Your task to perform on an android device: check storage Image 0: 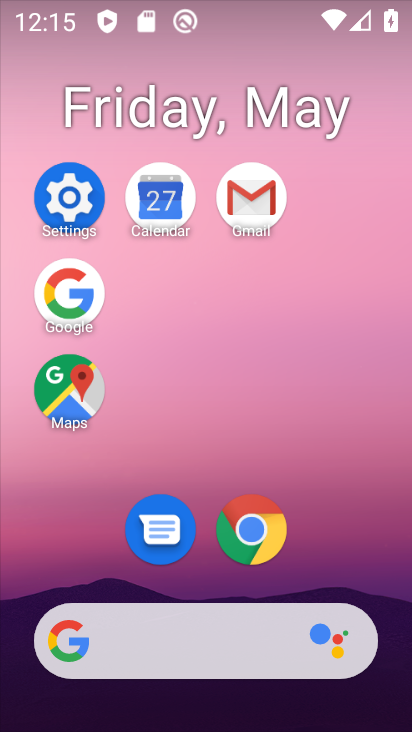
Step 0: click (88, 206)
Your task to perform on an android device: check storage Image 1: 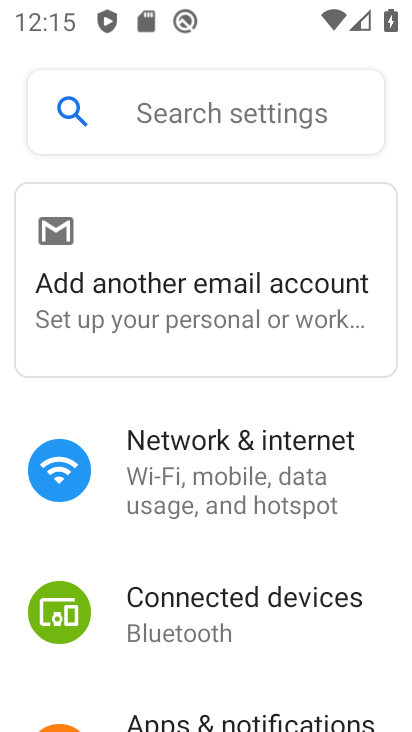
Step 1: drag from (276, 628) to (285, 192)
Your task to perform on an android device: check storage Image 2: 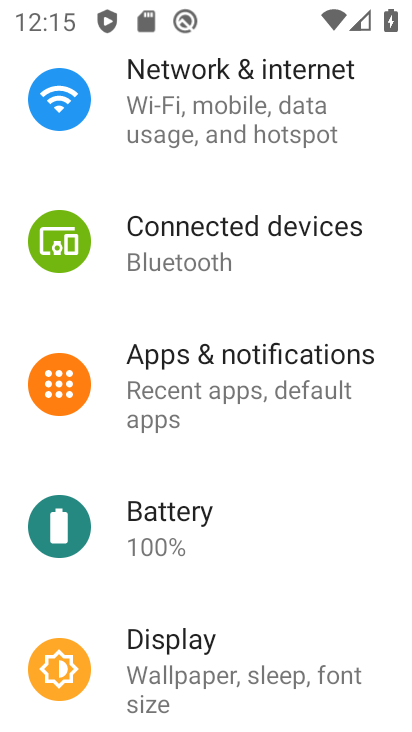
Step 2: drag from (268, 539) to (268, 168)
Your task to perform on an android device: check storage Image 3: 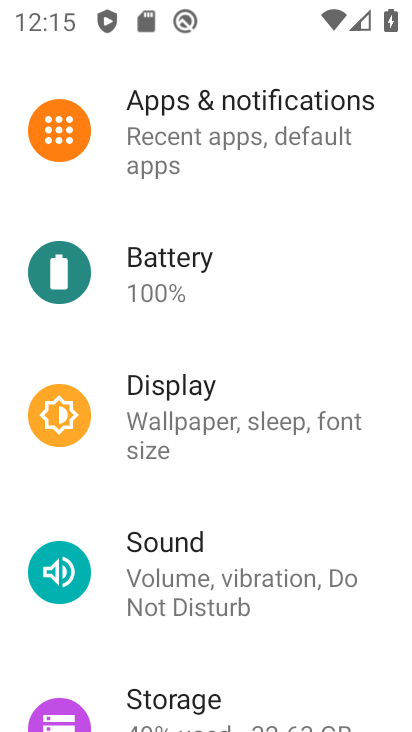
Step 3: click (231, 693)
Your task to perform on an android device: check storage Image 4: 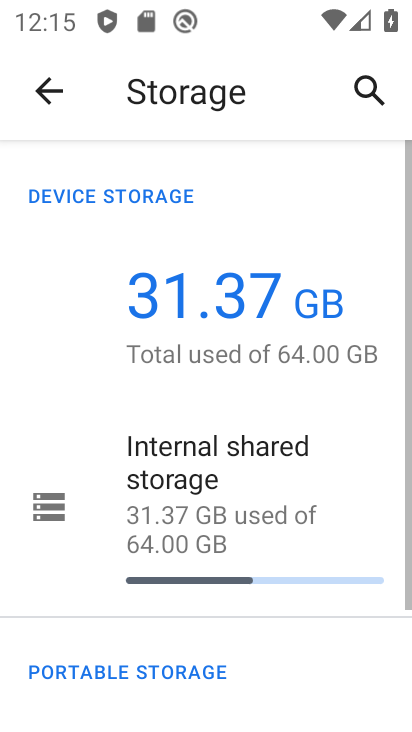
Step 4: task complete